Your task to perform on an android device: allow notifications from all sites in the chrome app Image 0: 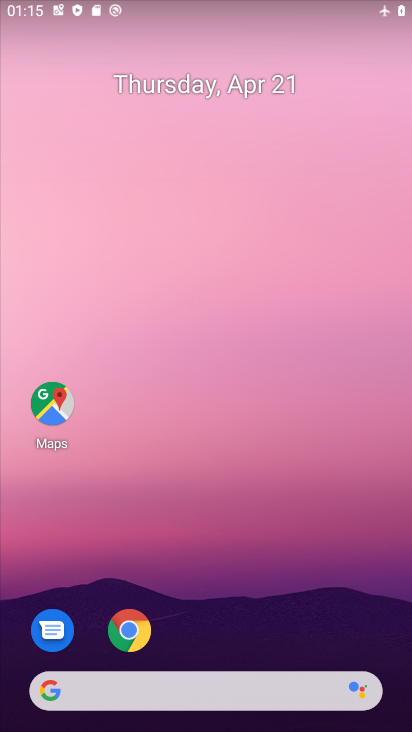
Step 0: click (132, 625)
Your task to perform on an android device: allow notifications from all sites in the chrome app Image 1: 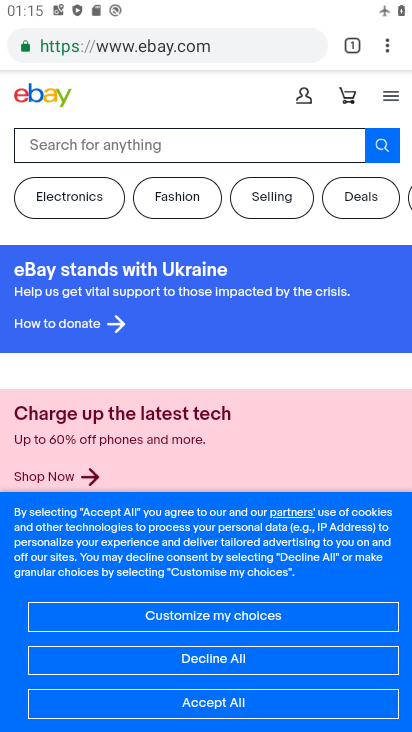
Step 1: click (385, 56)
Your task to perform on an android device: allow notifications from all sites in the chrome app Image 2: 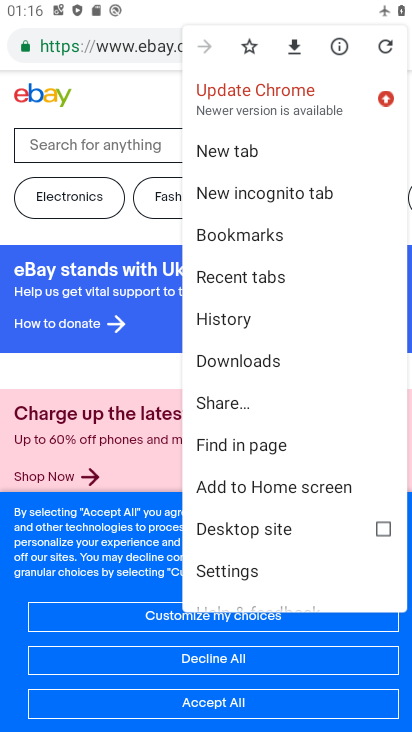
Step 2: click (236, 570)
Your task to perform on an android device: allow notifications from all sites in the chrome app Image 3: 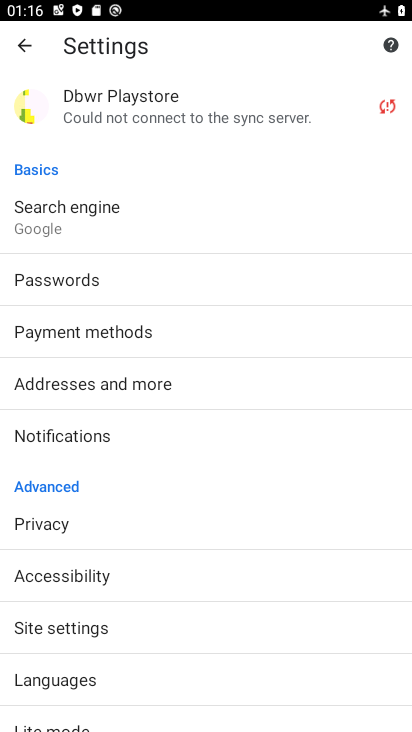
Step 3: drag from (172, 620) to (145, 297)
Your task to perform on an android device: allow notifications from all sites in the chrome app Image 4: 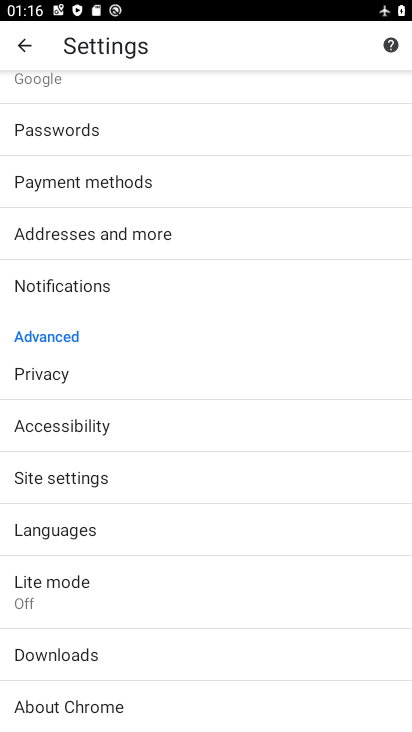
Step 4: click (81, 479)
Your task to perform on an android device: allow notifications from all sites in the chrome app Image 5: 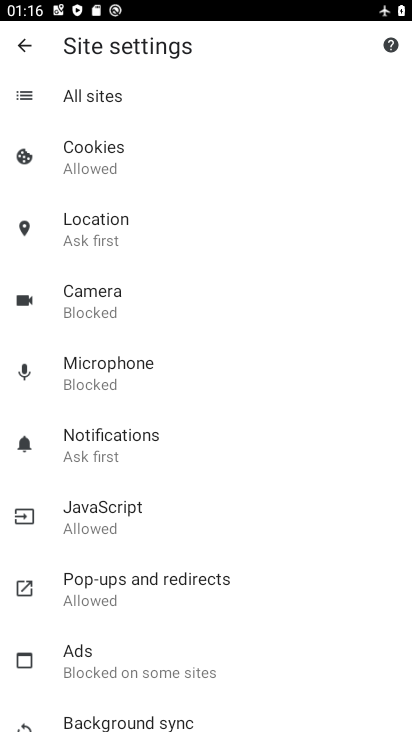
Step 5: click (196, 150)
Your task to perform on an android device: allow notifications from all sites in the chrome app Image 6: 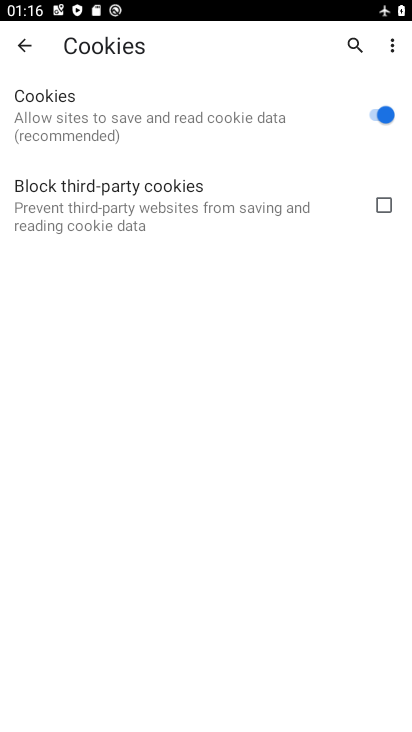
Step 6: task complete